Your task to perform on an android device: Open my contact list Image 0: 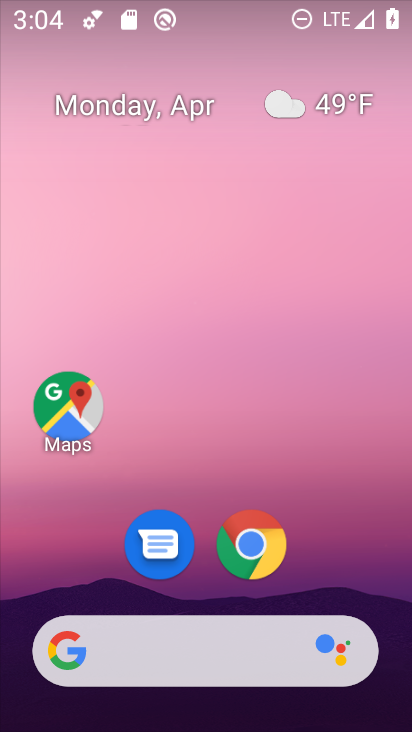
Step 0: drag from (342, 566) to (235, 49)
Your task to perform on an android device: Open my contact list Image 1: 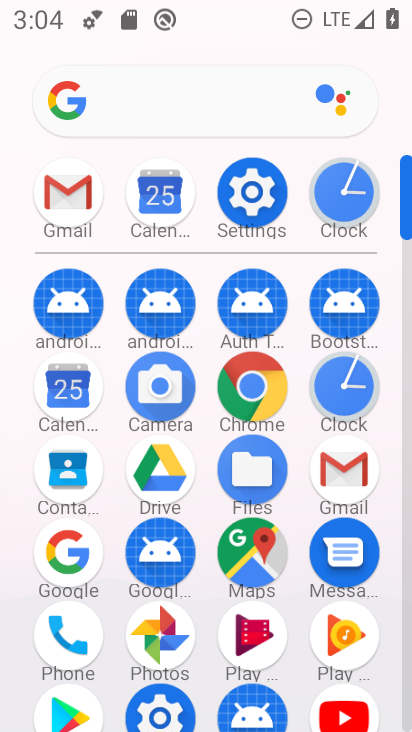
Step 1: click (65, 474)
Your task to perform on an android device: Open my contact list Image 2: 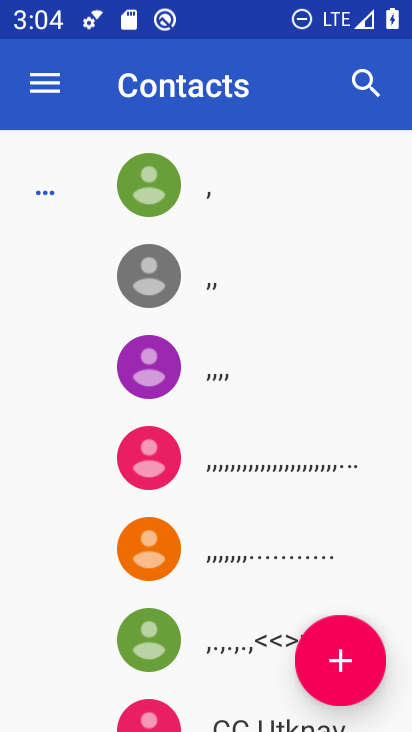
Step 2: task complete